Your task to perform on an android device: Search for razer blade on costco, select the first entry, add it to the cart, then select checkout. Image 0: 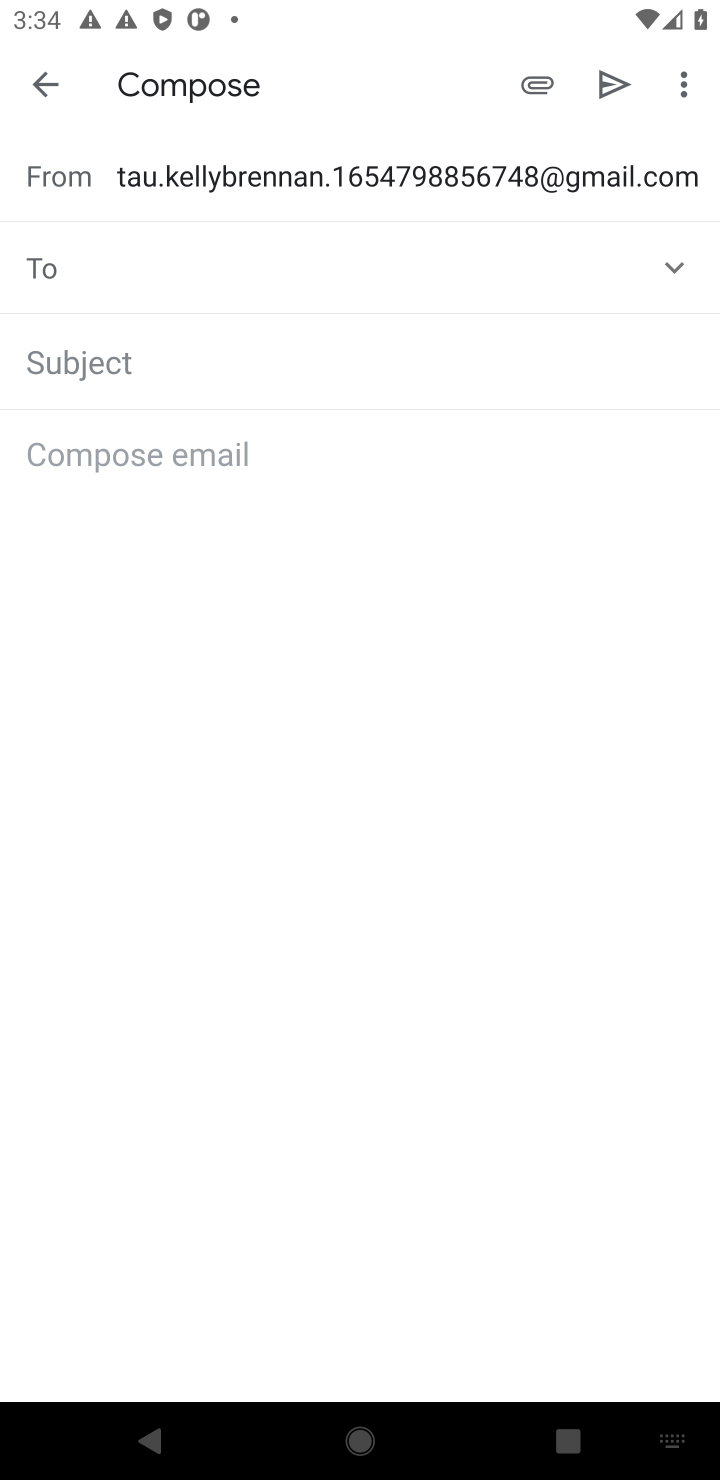
Step 0: press home button
Your task to perform on an android device: Search for razer blade on costco, select the first entry, add it to the cart, then select checkout. Image 1: 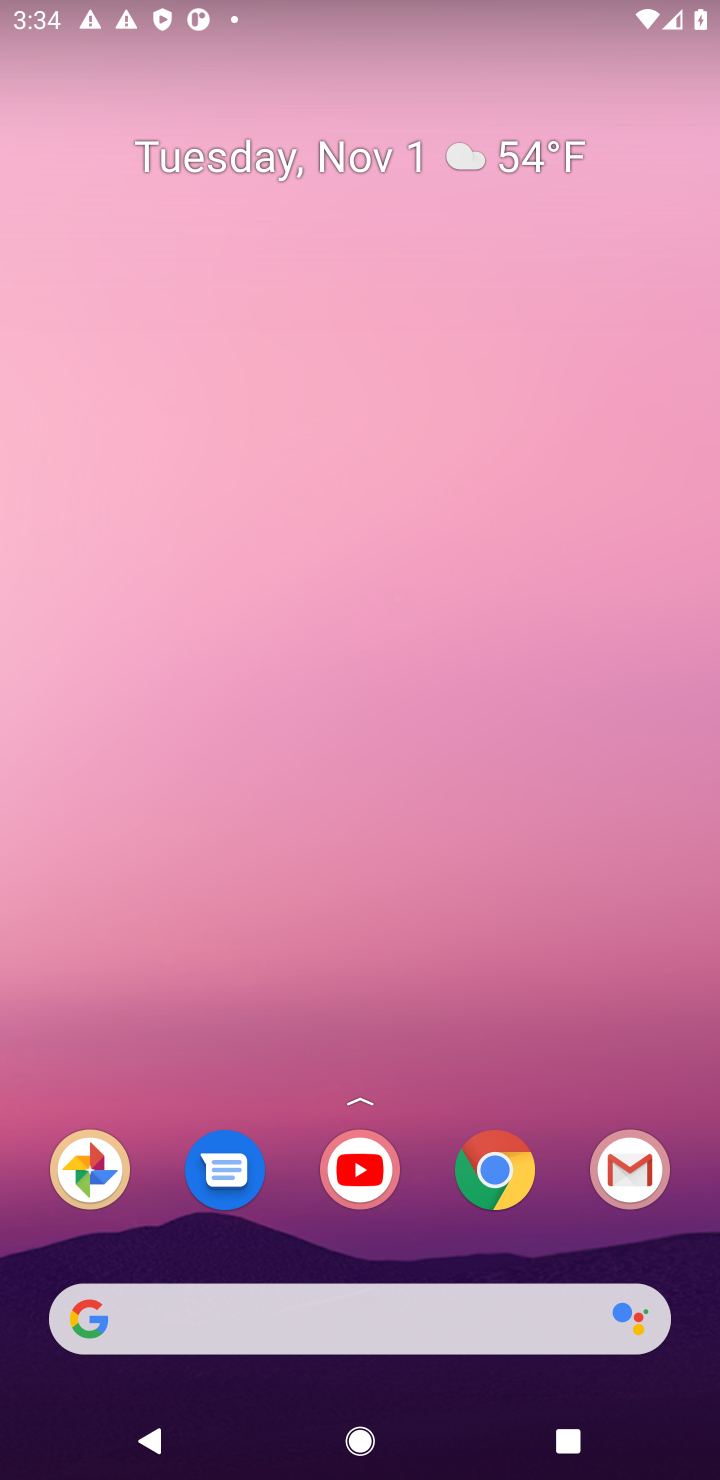
Step 1: drag from (456, 1368) to (440, 102)
Your task to perform on an android device: Search for razer blade on costco, select the first entry, add it to the cart, then select checkout. Image 2: 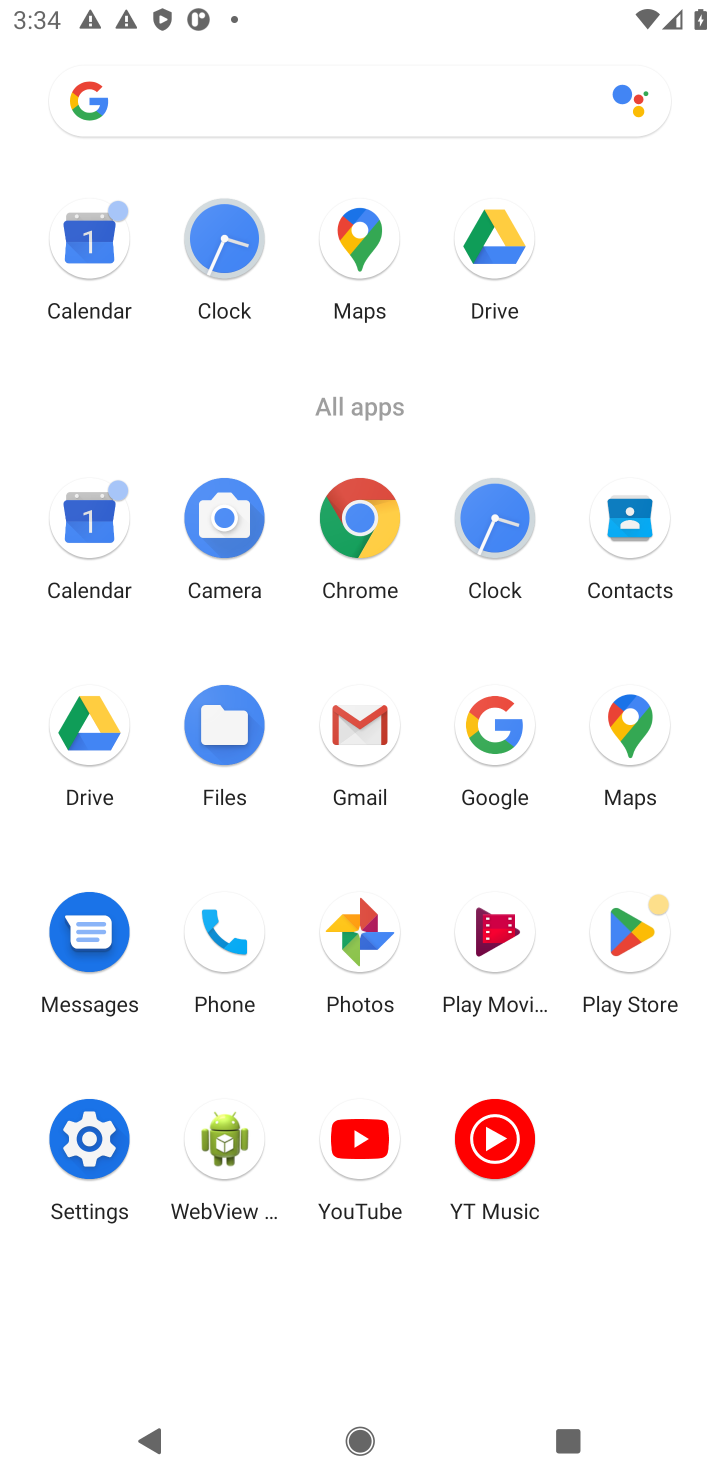
Step 2: click (350, 523)
Your task to perform on an android device: Search for razer blade on costco, select the first entry, add it to the cart, then select checkout. Image 3: 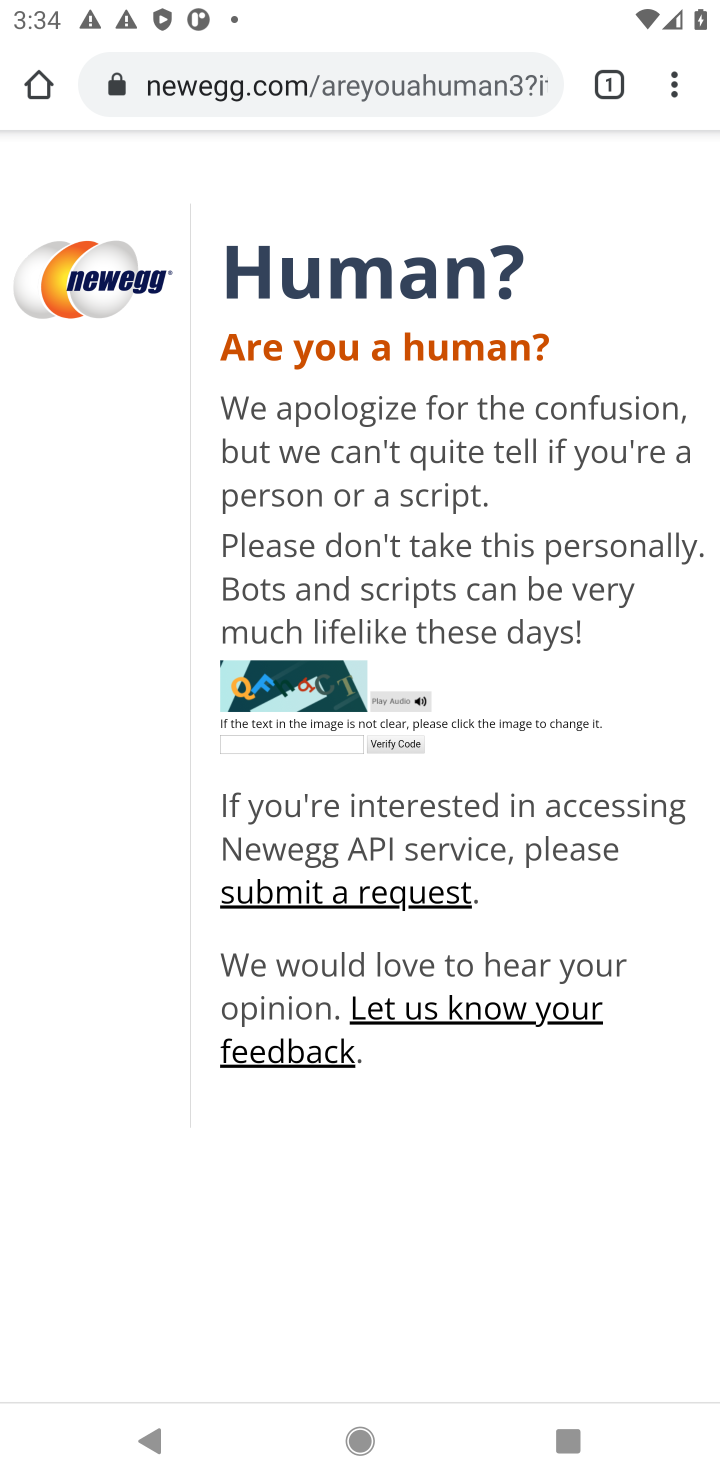
Step 3: click (328, 73)
Your task to perform on an android device: Search for razer blade on costco, select the first entry, add it to the cart, then select checkout. Image 4: 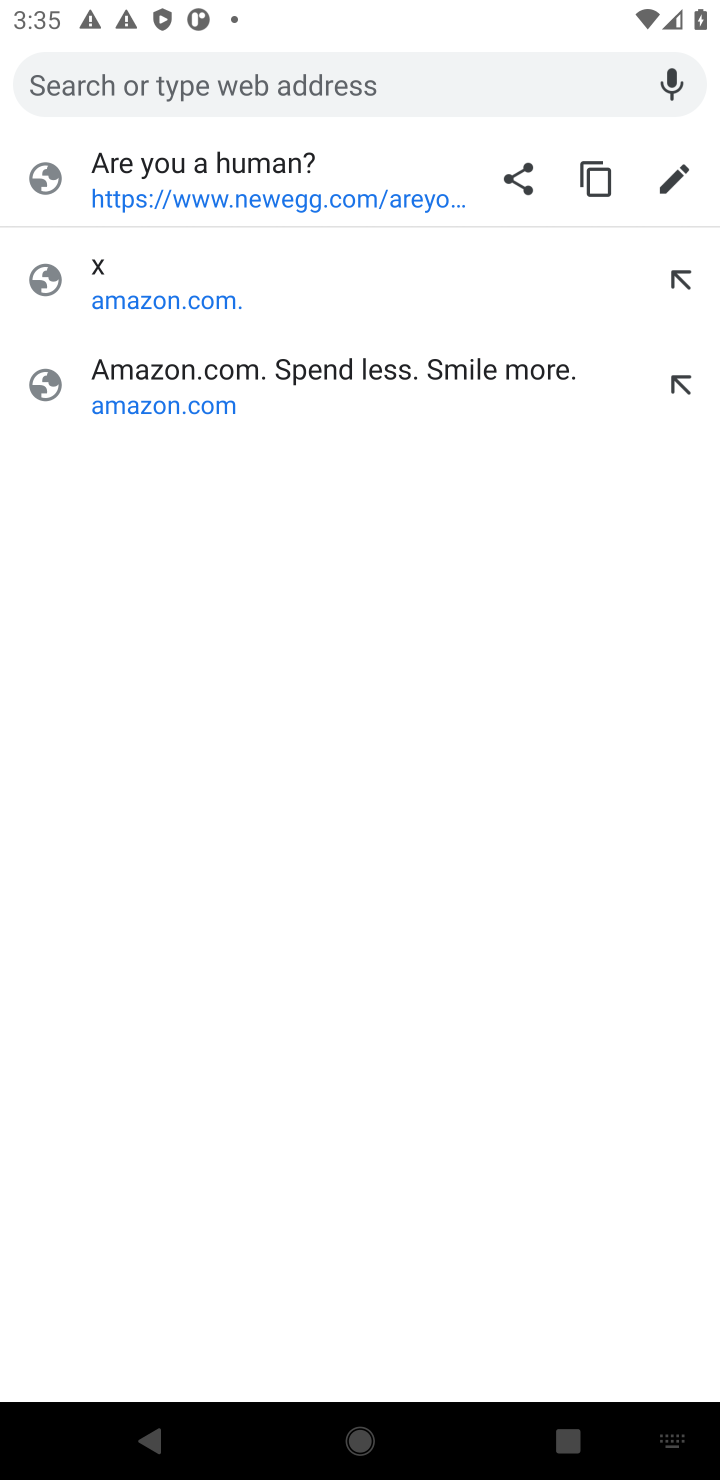
Step 4: type "costco"
Your task to perform on an android device: Search for razer blade on costco, select the first entry, add it to the cart, then select checkout. Image 5: 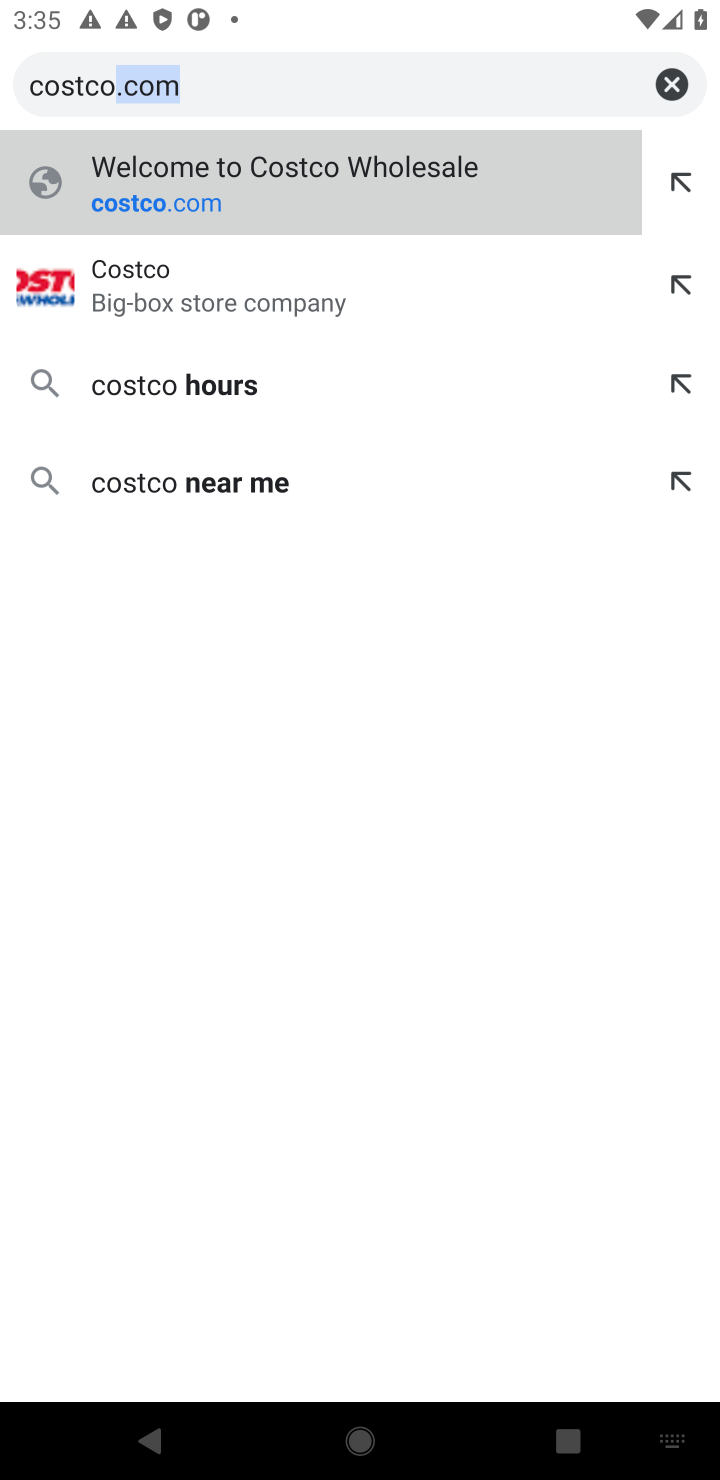
Step 5: click (160, 199)
Your task to perform on an android device: Search for razer blade on costco, select the first entry, add it to the cart, then select checkout. Image 6: 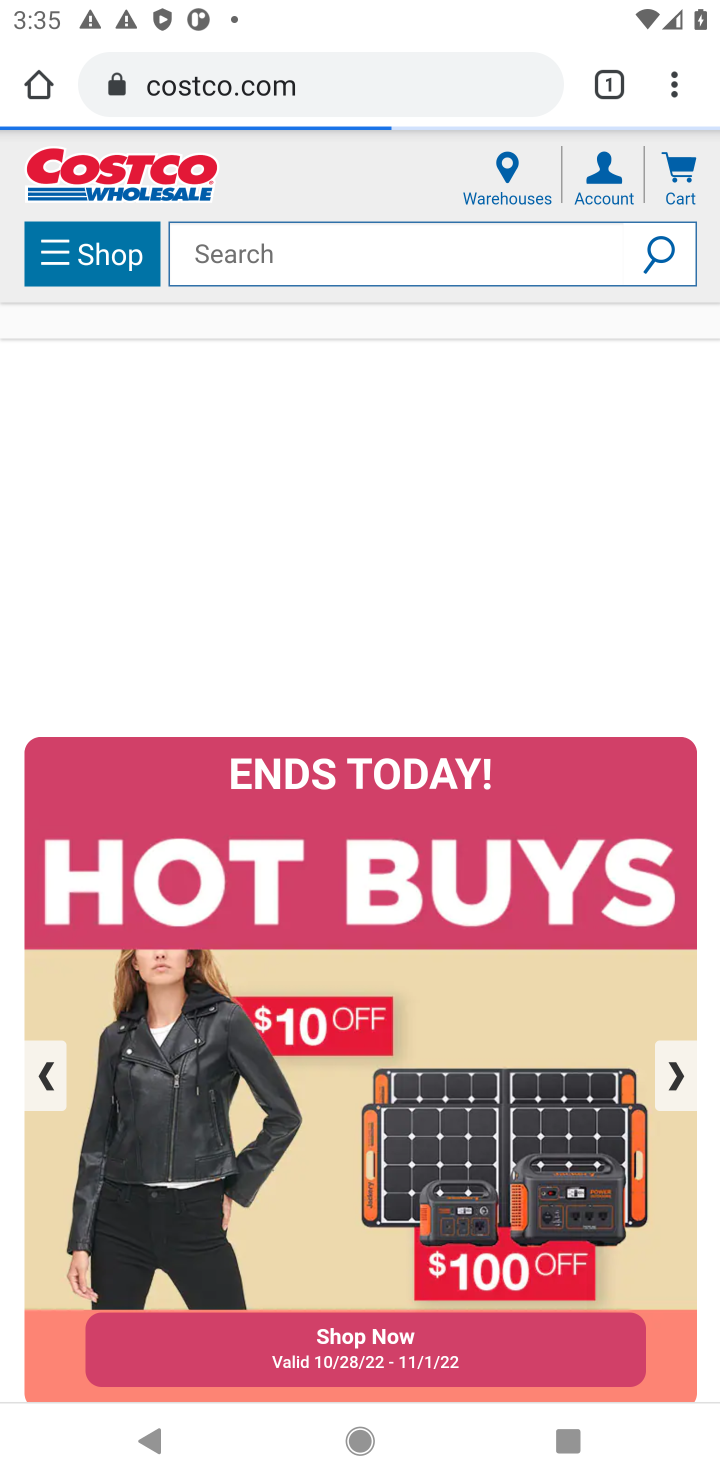
Step 6: click (336, 236)
Your task to perform on an android device: Search for razer blade on costco, select the first entry, add it to the cart, then select checkout. Image 7: 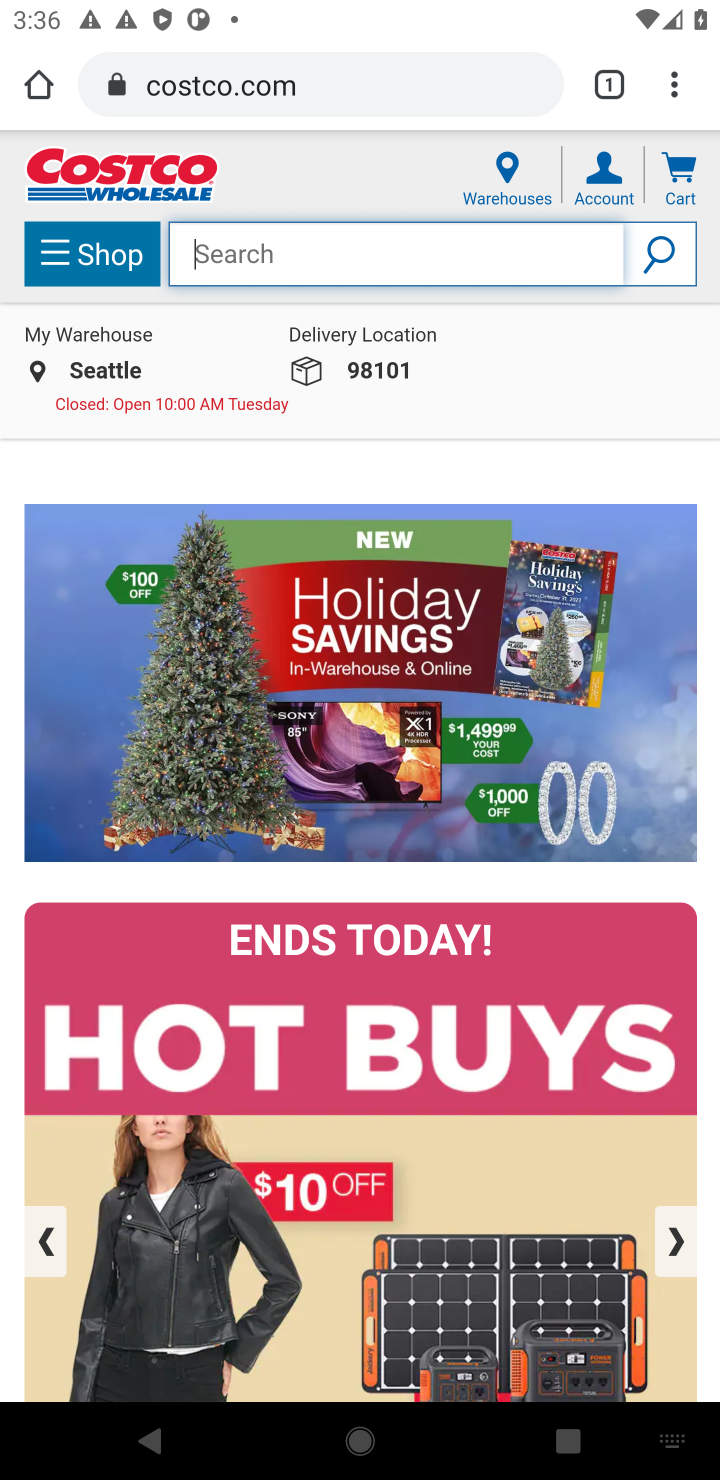
Step 7: type "razer blade"
Your task to perform on an android device: Search for razer blade on costco, select the first entry, add it to the cart, then select checkout. Image 8: 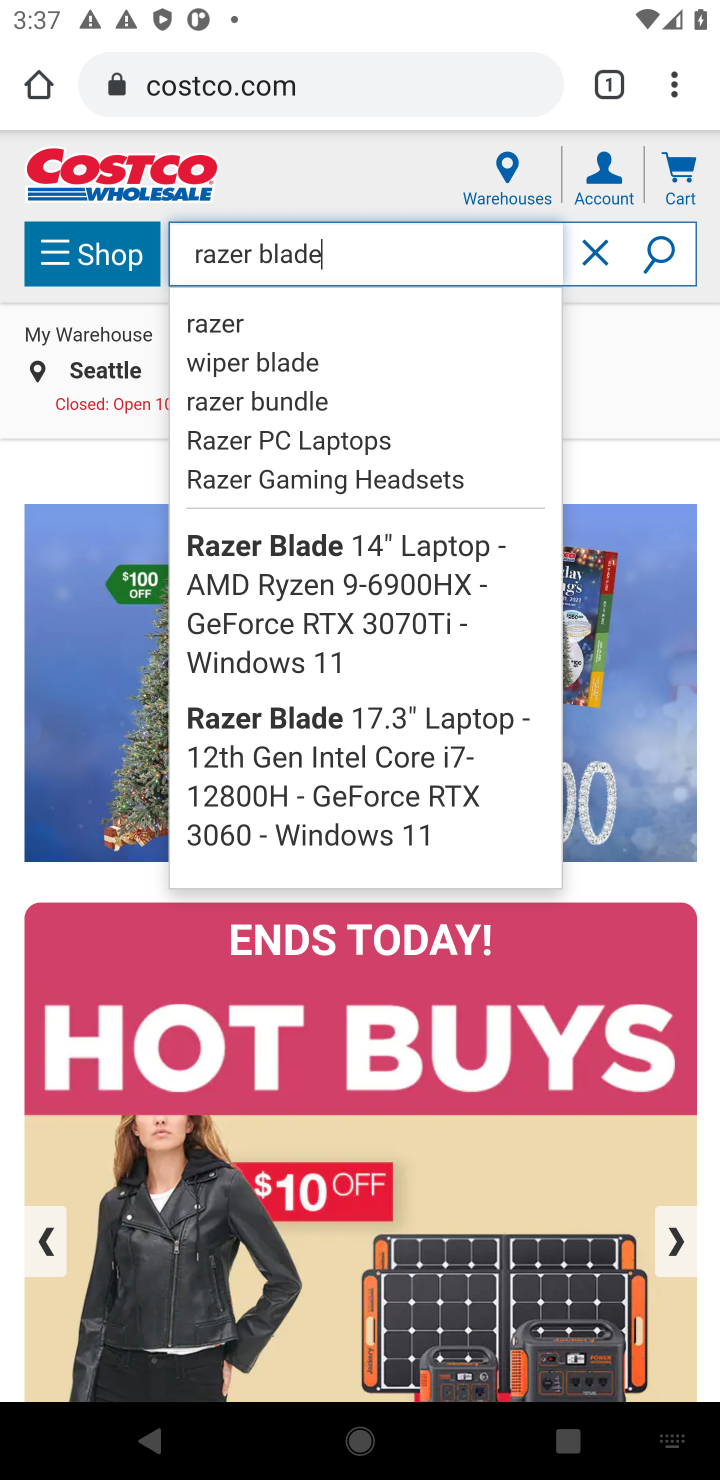
Step 8: click (666, 246)
Your task to perform on an android device: Search for razer blade on costco, select the first entry, add it to the cart, then select checkout. Image 9: 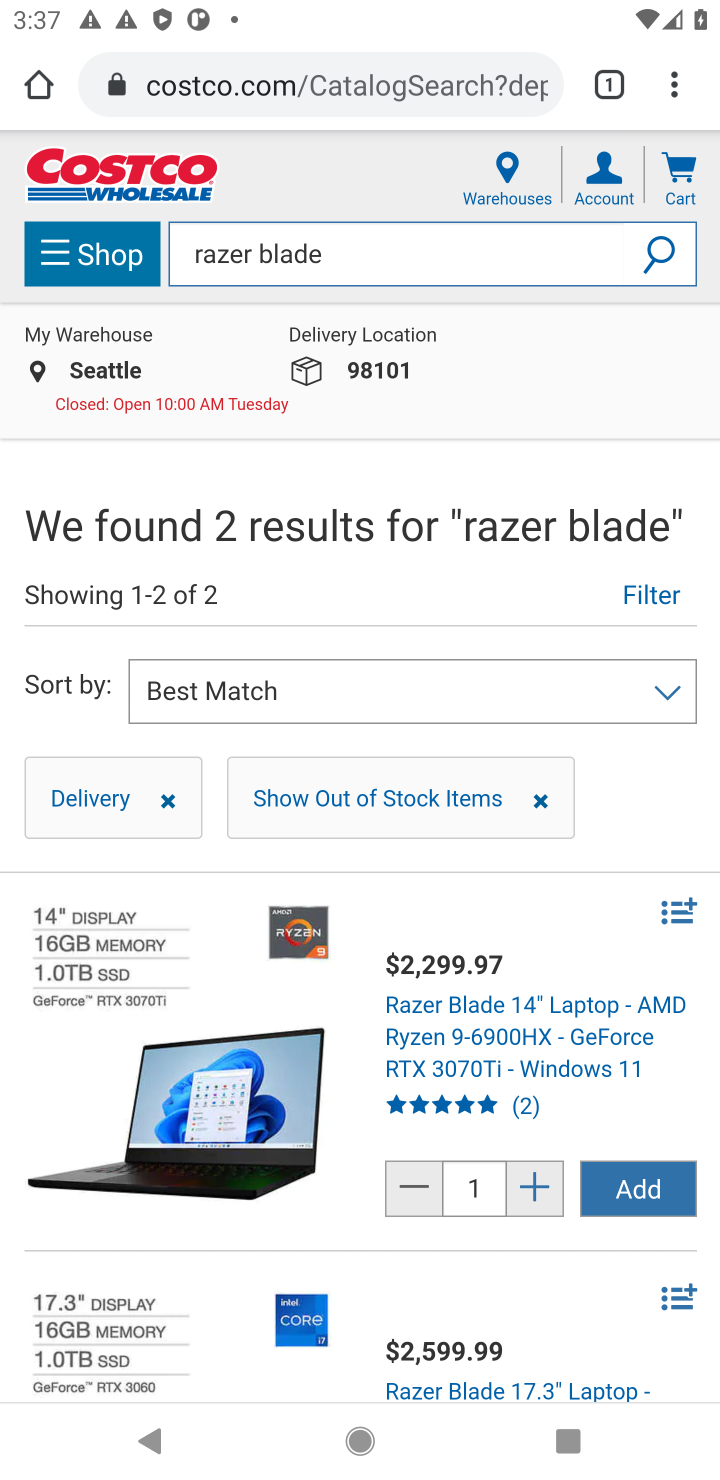
Step 9: click (653, 242)
Your task to perform on an android device: Search for razer blade on costco, select the first entry, add it to the cart, then select checkout. Image 10: 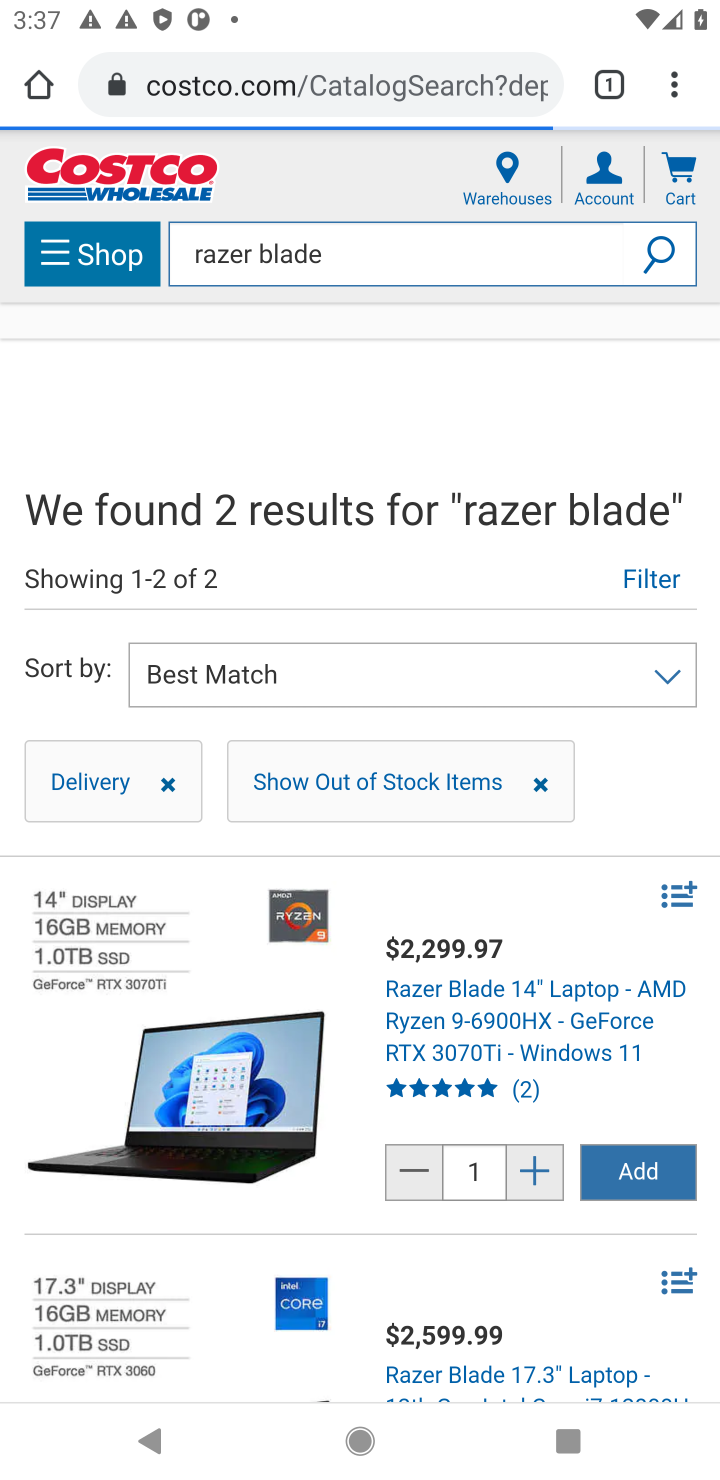
Step 10: click (201, 1015)
Your task to perform on an android device: Search for razer blade on costco, select the first entry, add it to the cart, then select checkout. Image 11: 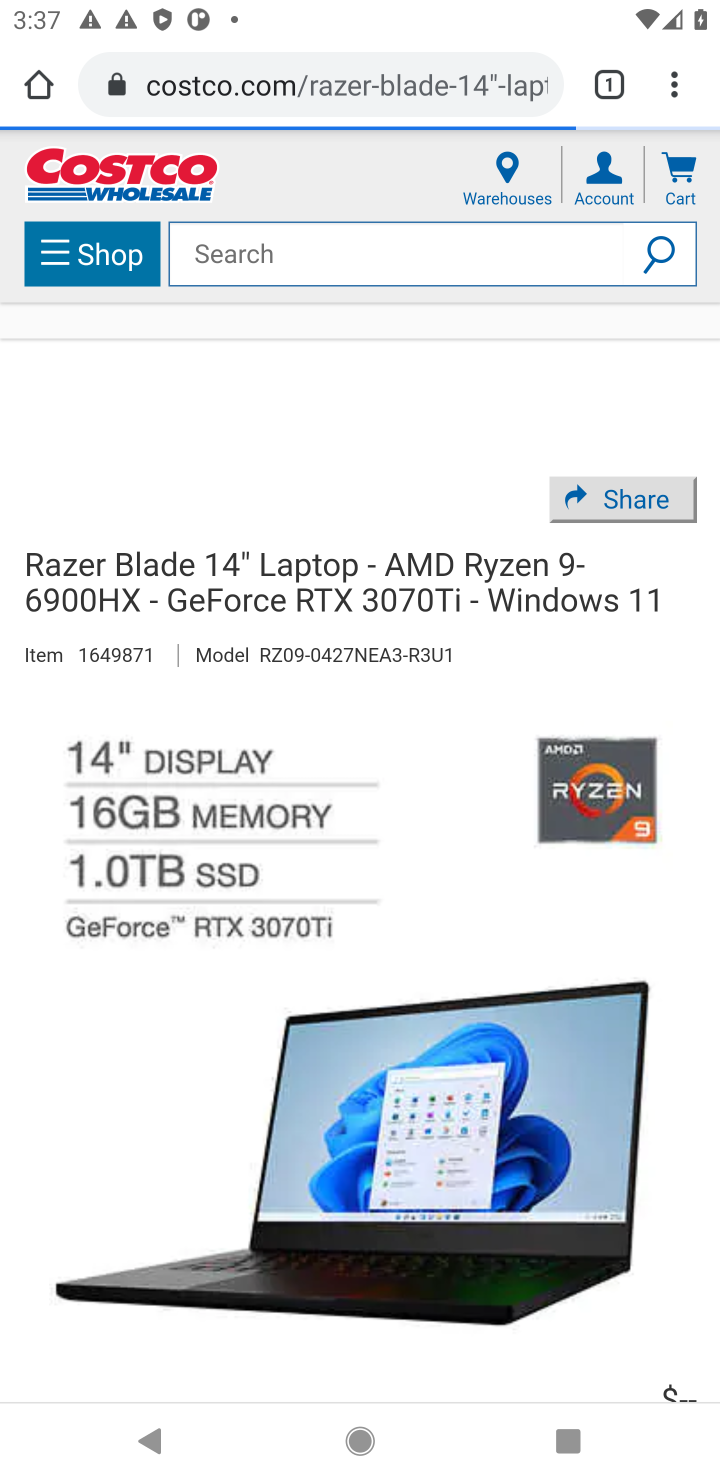
Step 11: drag from (111, 697) to (6, 262)
Your task to perform on an android device: Search for razer blade on costco, select the first entry, add it to the cart, then select checkout. Image 12: 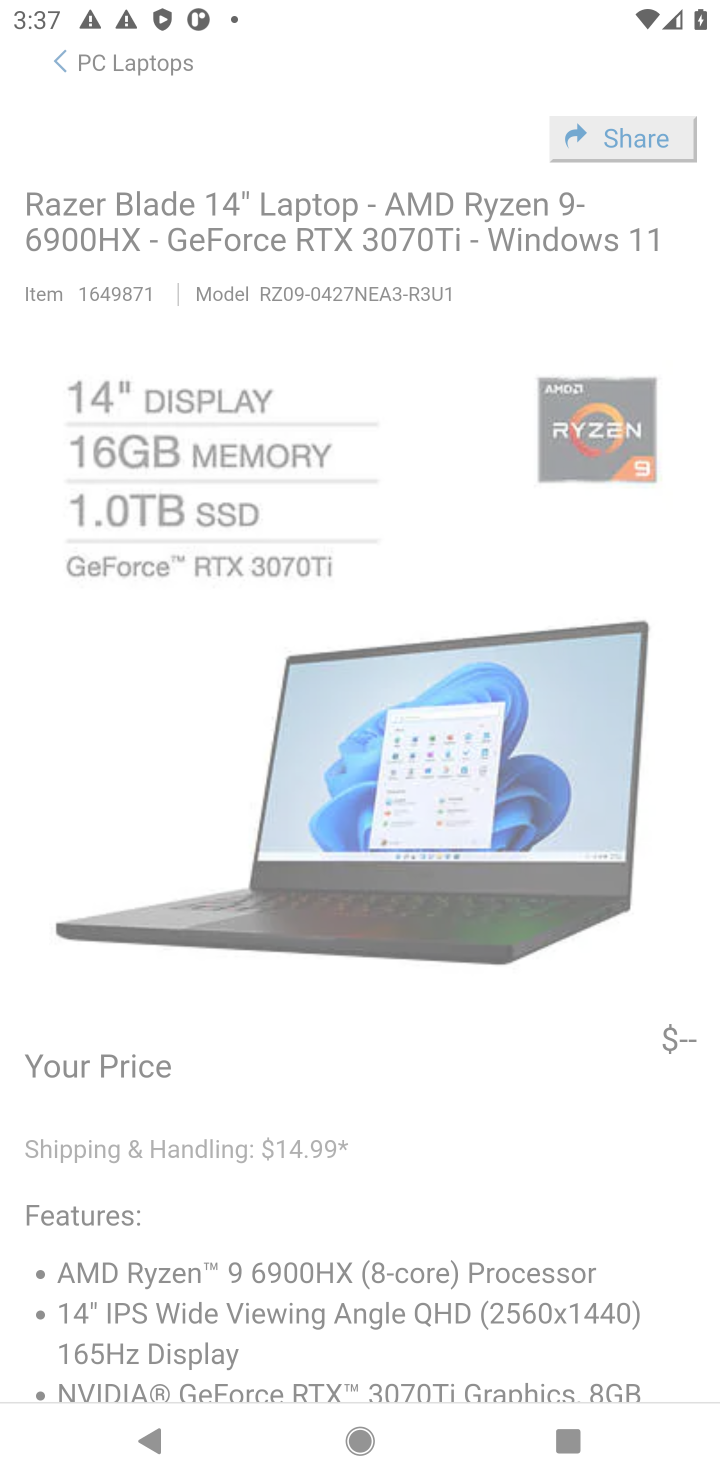
Step 12: drag from (222, 855) to (210, 277)
Your task to perform on an android device: Search for razer blade on costco, select the first entry, add it to the cart, then select checkout. Image 13: 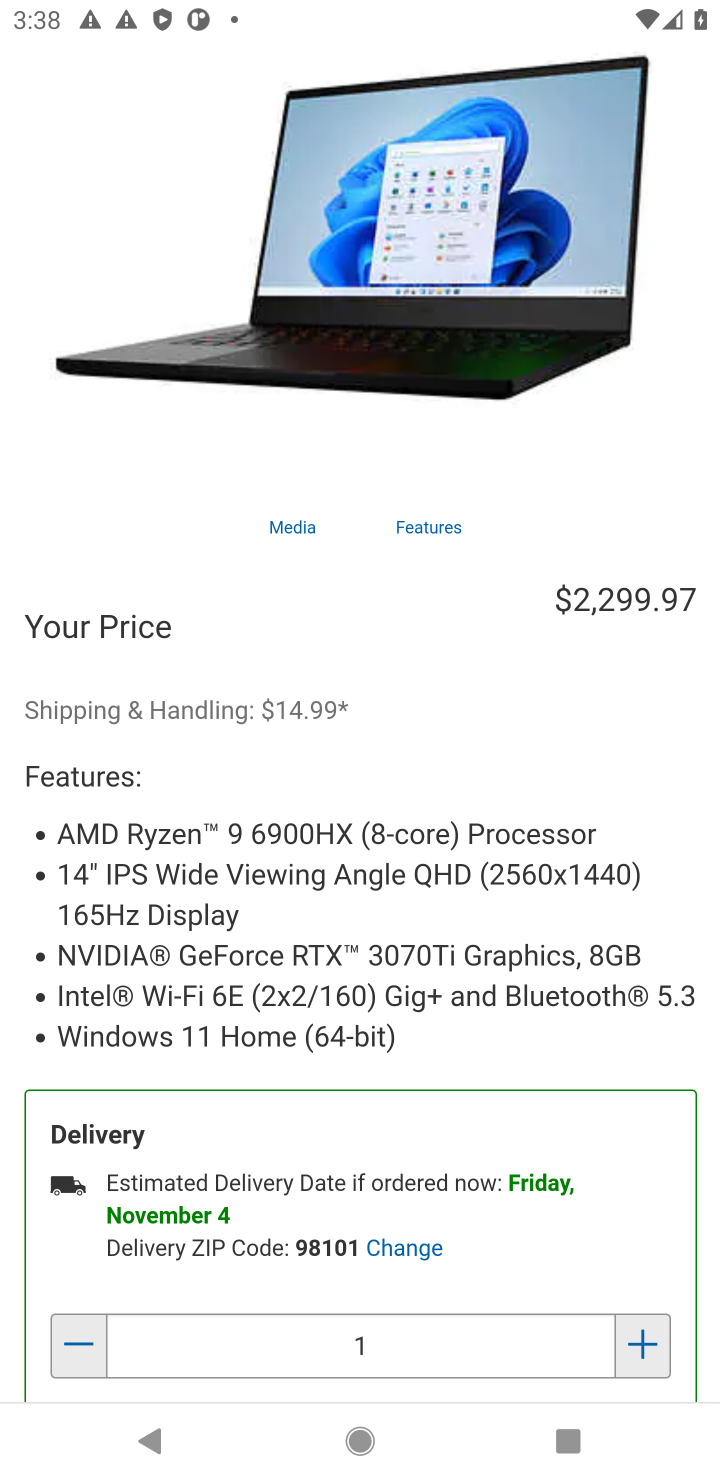
Step 13: drag from (435, 992) to (375, 148)
Your task to perform on an android device: Search for razer blade on costco, select the first entry, add it to the cart, then select checkout. Image 14: 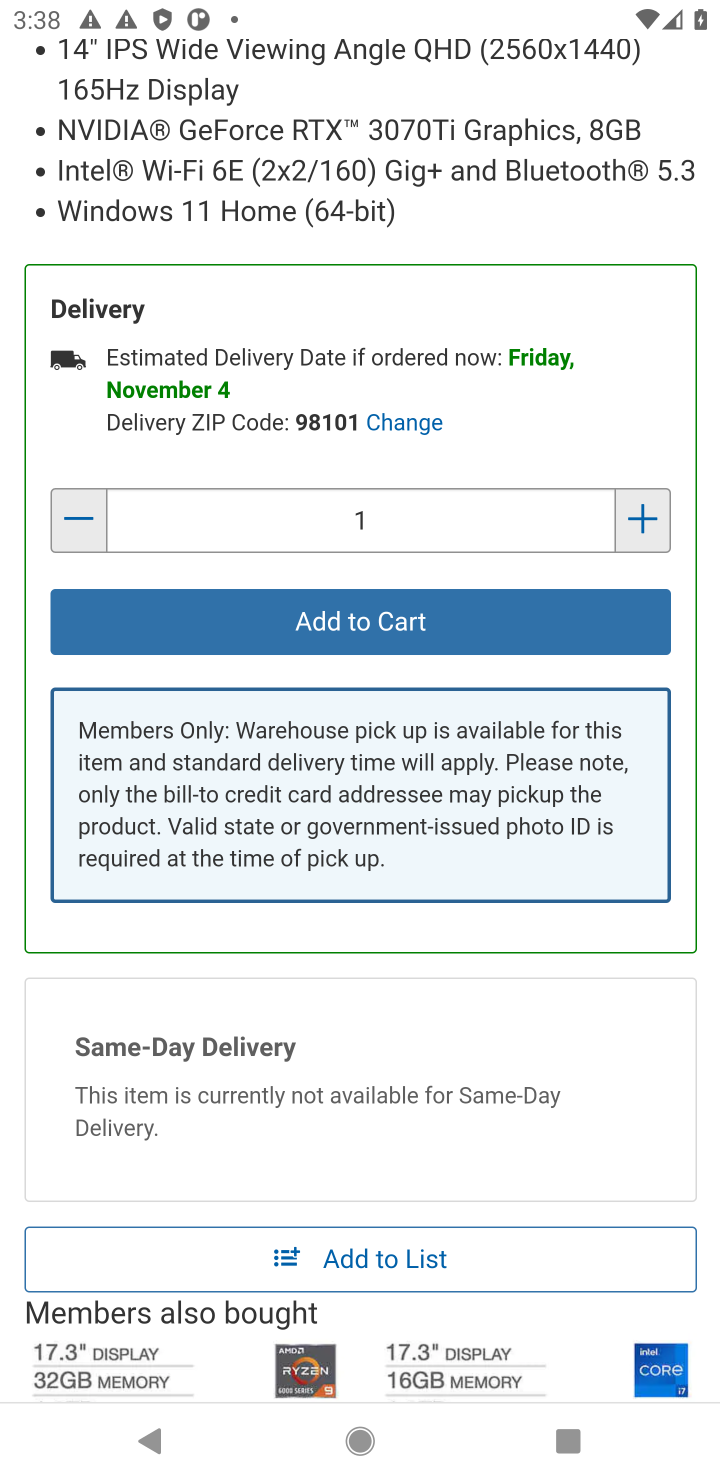
Step 14: click (309, 603)
Your task to perform on an android device: Search for razer blade on costco, select the first entry, add it to the cart, then select checkout. Image 15: 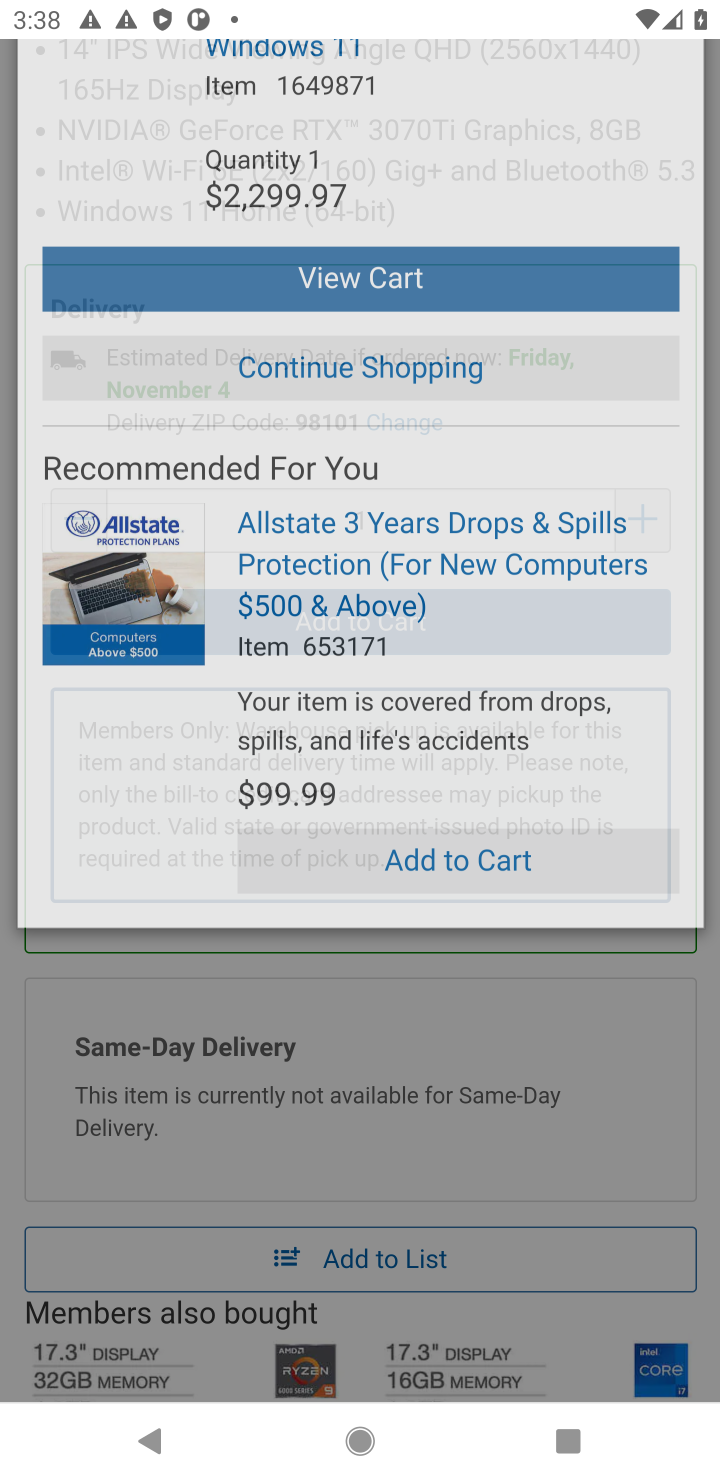
Step 15: task complete